Your task to perform on an android device: Open Amazon Image 0: 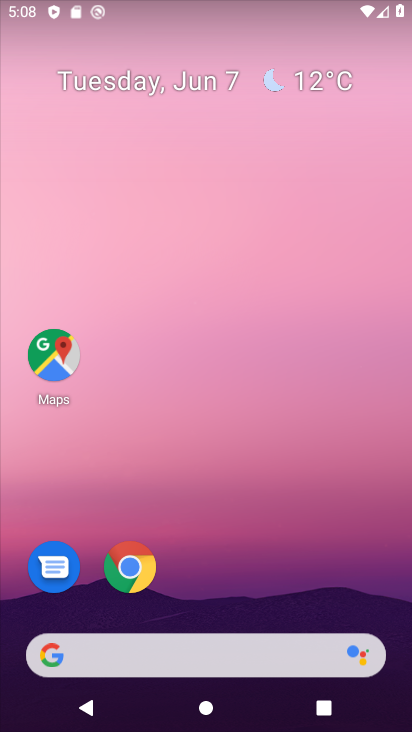
Step 0: drag from (196, 537) to (164, 22)
Your task to perform on an android device: Open Amazon Image 1: 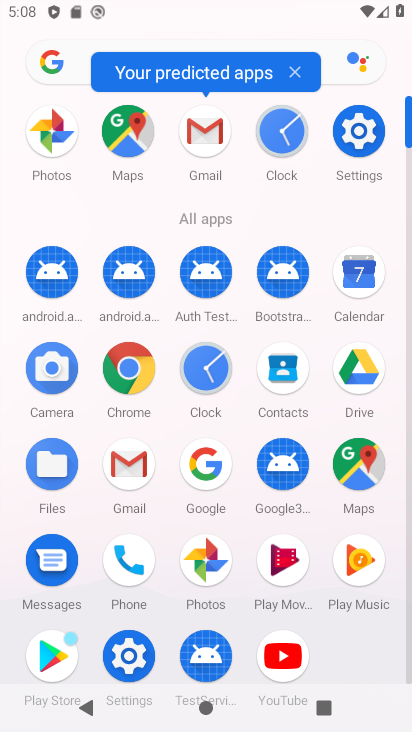
Step 1: click (124, 372)
Your task to perform on an android device: Open Amazon Image 2: 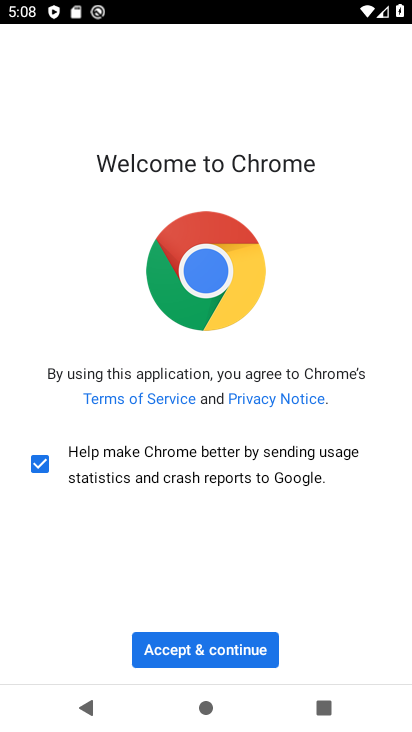
Step 2: click (215, 652)
Your task to perform on an android device: Open Amazon Image 3: 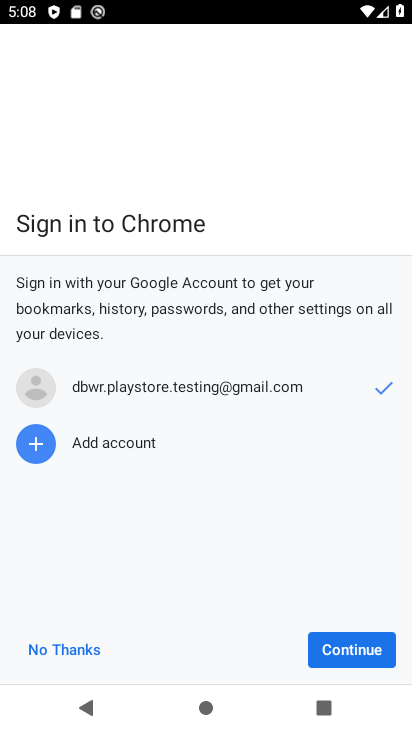
Step 3: click (353, 641)
Your task to perform on an android device: Open Amazon Image 4: 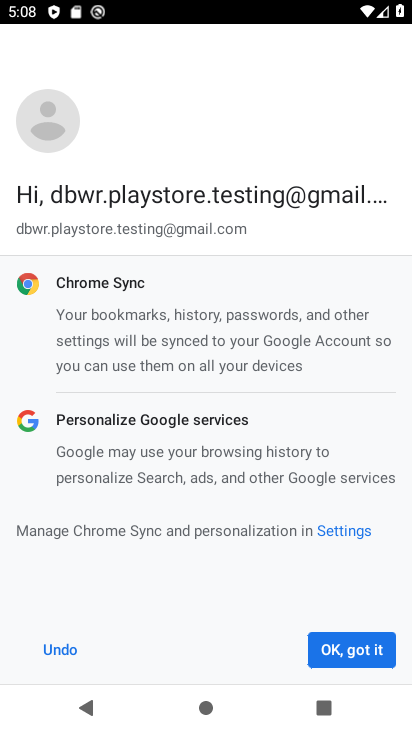
Step 4: click (353, 641)
Your task to perform on an android device: Open Amazon Image 5: 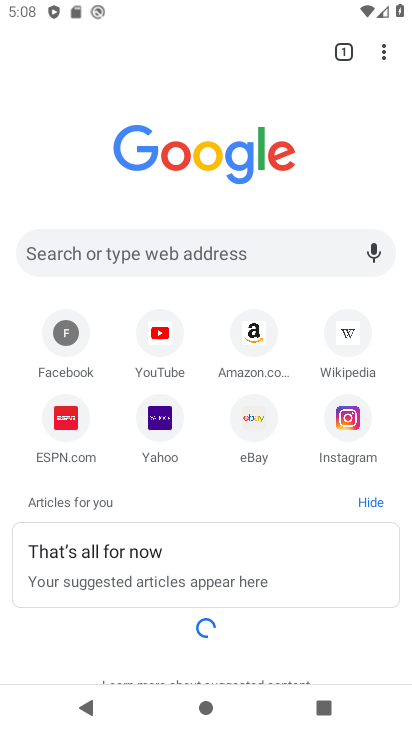
Step 5: click (252, 328)
Your task to perform on an android device: Open Amazon Image 6: 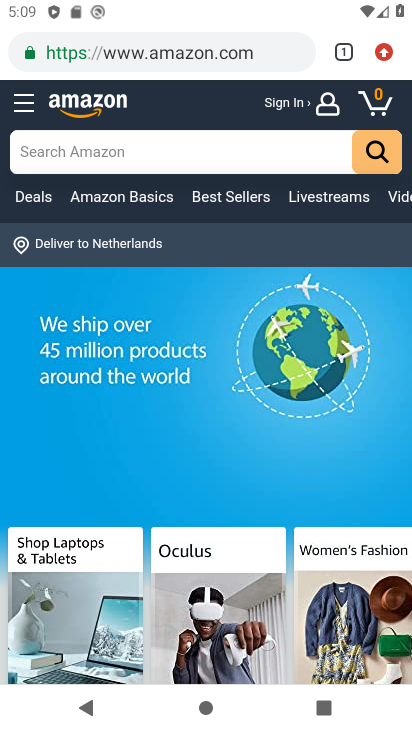
Step 6: task complete